Your task to perform on an android device: check data usage Image 0: 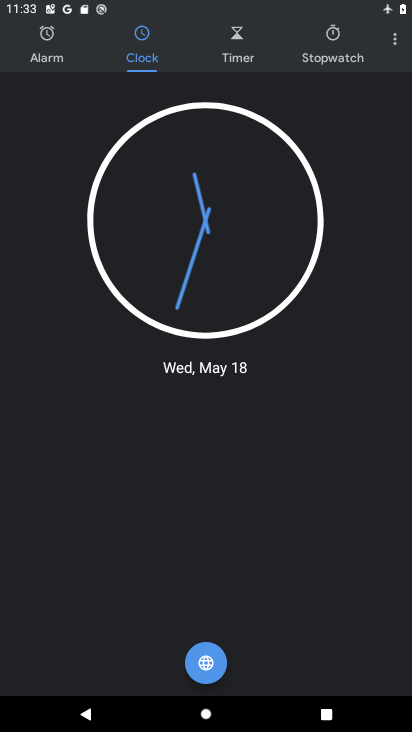
Step 0: press home button
Your task to perform on an android device: check data usage Image 1: 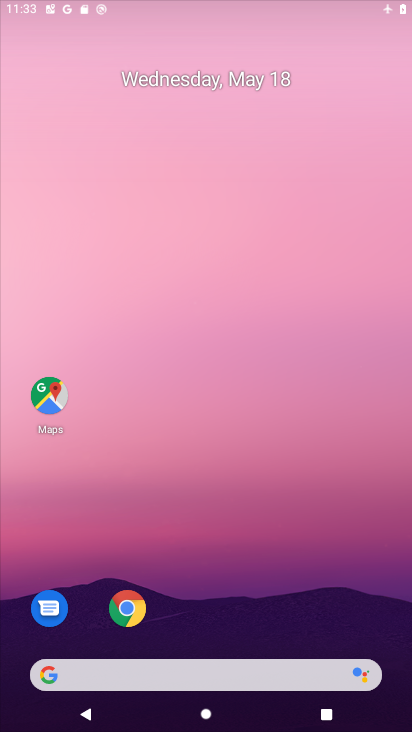
Step 1: drag from (190, 602) to (114, 141)
Your task to perform on an android device: check data usage Image 2: 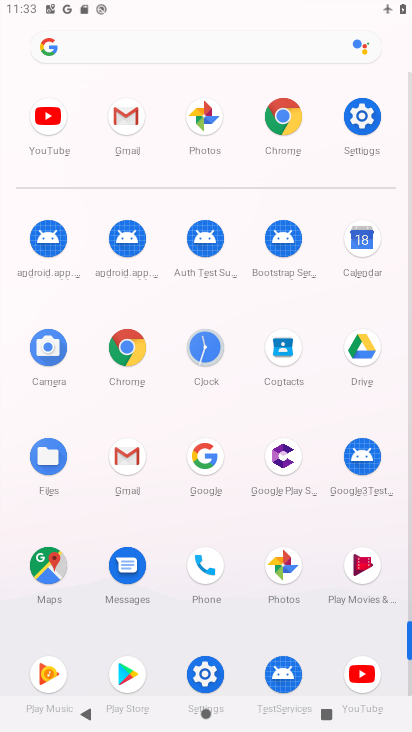
Step 2: click (357, 134)
Your task to perform on an android device: check data usage Image 3: 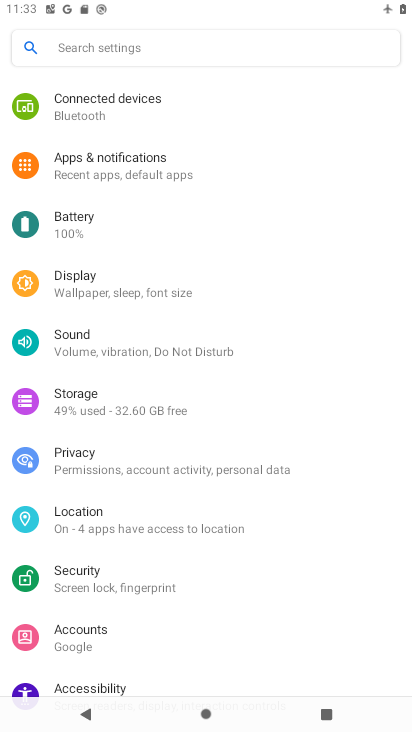
Step 3: drag from (114, 172) to (118, 385)
Your task to perform on an android device: check data usage Image 4: 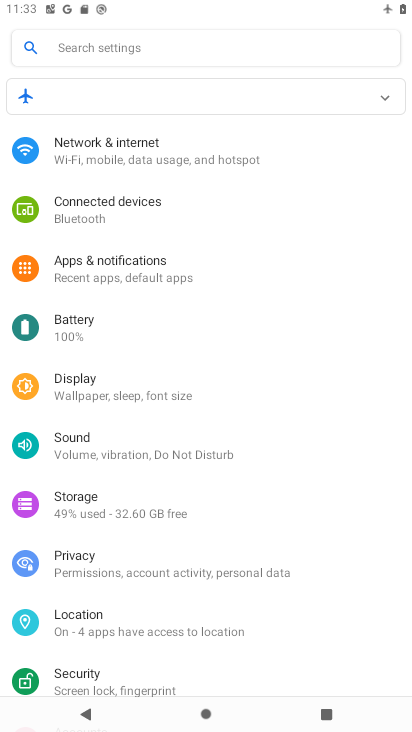
Step 4: click (105, 161)
Your task to perform on an android device: check data usage Image 5: 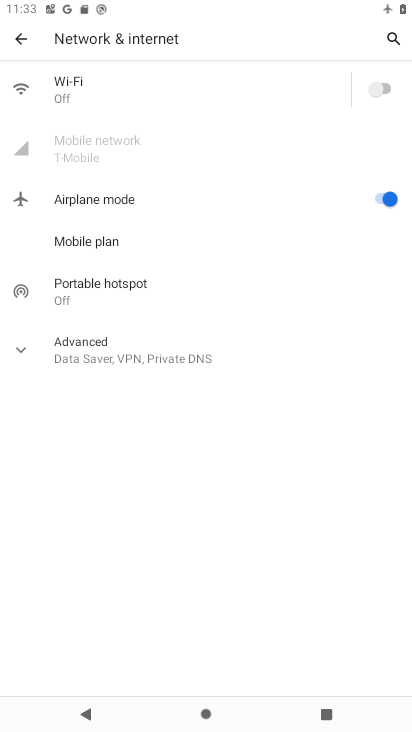
Step 5: click (103, 94)
Your task to perform on an android device: check data usage Image 6: 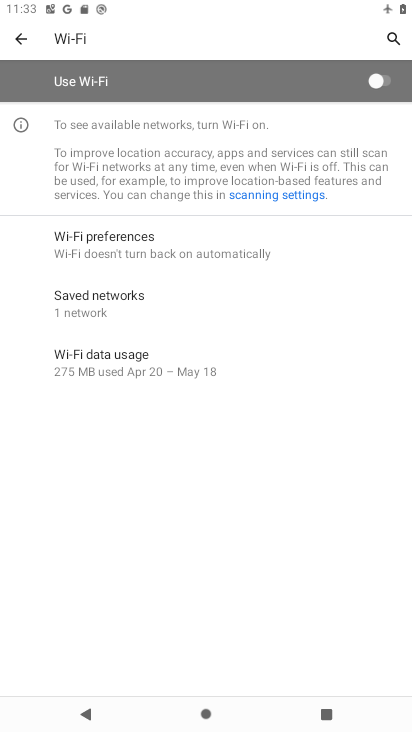
Step 6: task complete